Your task to perform on an android device: turn notification dots off Image 0: 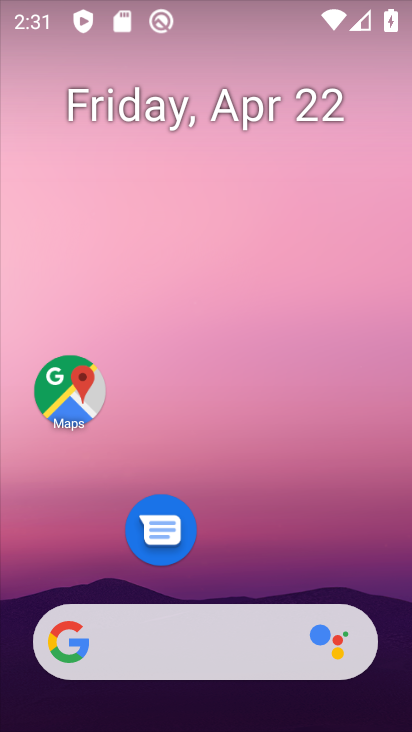
Step 0: drag from (287, 532) to (308, 22)
Your task to perform on an android device: turn notification dots off Image 1: 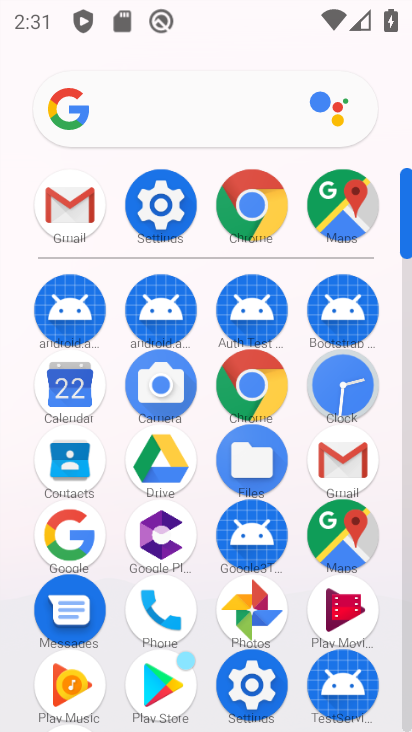
Step 1: click (165, 217)
Your task to perform on an android device: turn notification dots off Image 2: 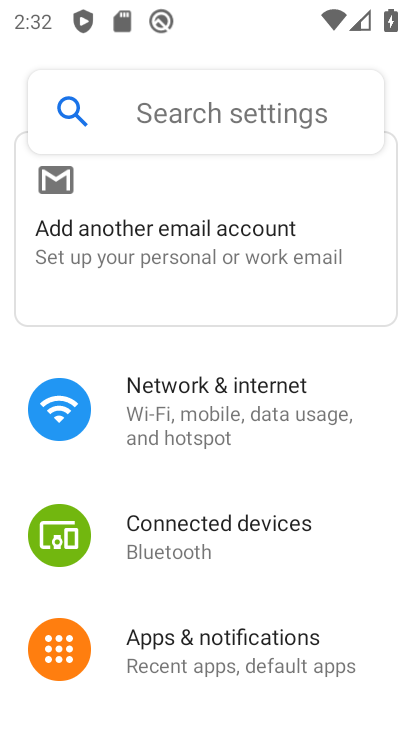
Step 2: click (223, 641)
Your task to perform on an android device: turn notification dots off Image 3: 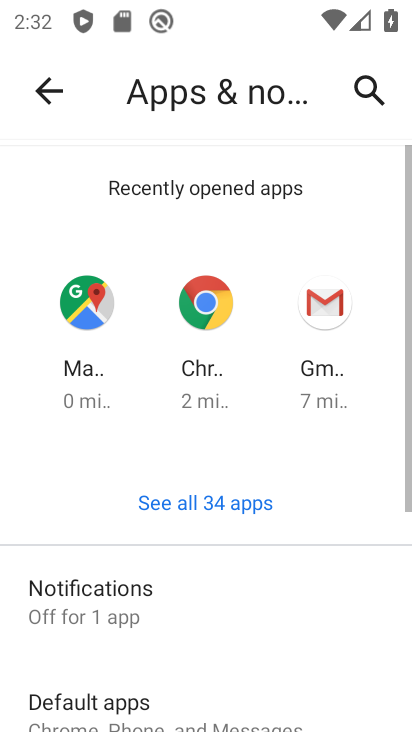
Step 3: drag from (176, 577) to (183, 119)
Your task to perform on an android device: turn notification dots off Image 4: 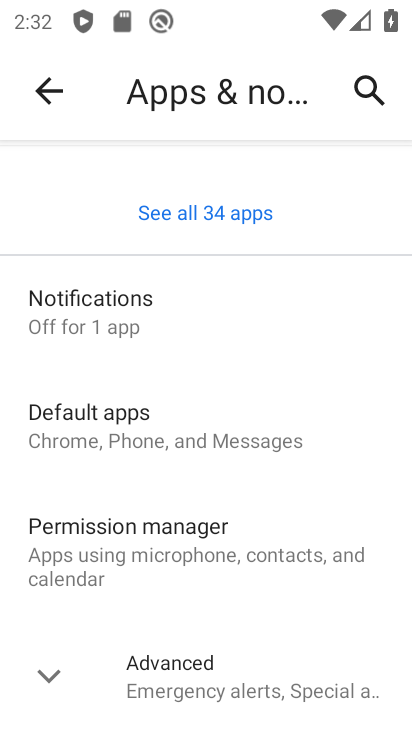
Step 4: click (110, 309)
Your task to perform on an android device: turn notification dots off Image 5: 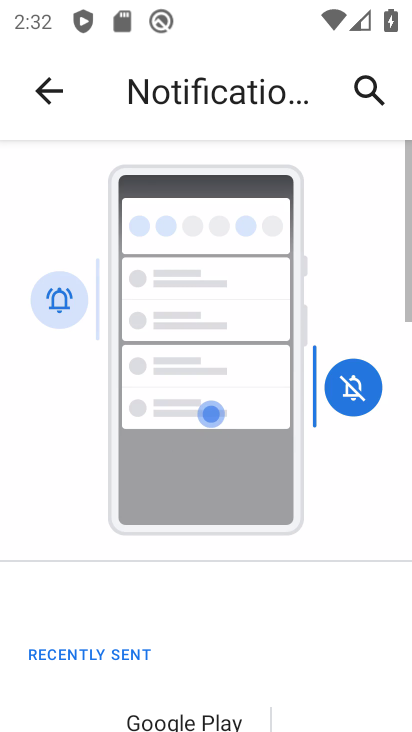
Step 5: drag from (200, 613) to (209, 154)
Your task to perform on an android device: turn notification dots off Image 6: 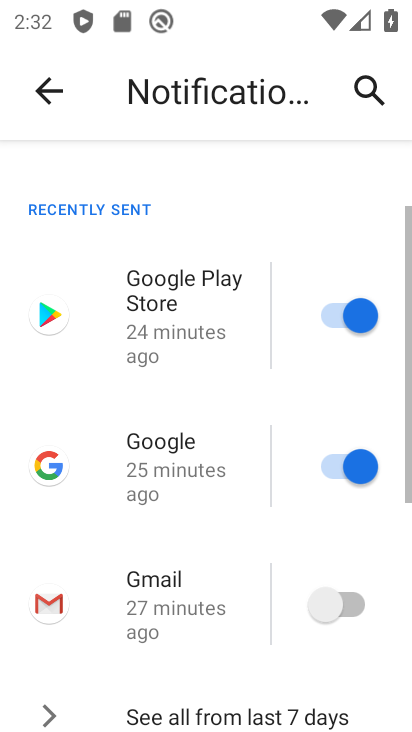
Step 6: drag from (195, 577) to (179, 215)
Your task to perform on an android device: turn notification dots off Image 7: 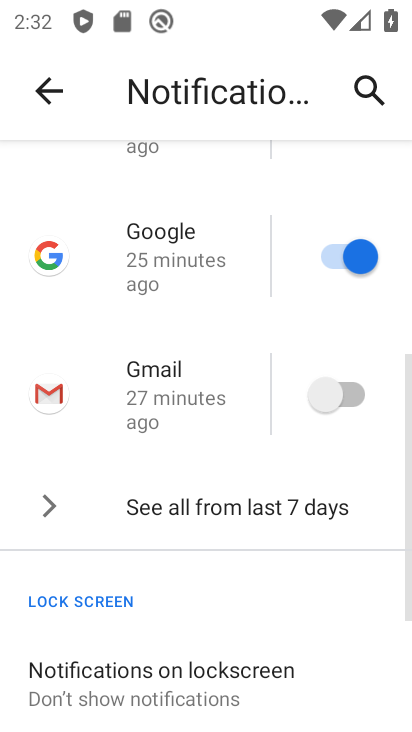
Step 7: drag from (188, 618) to (163, 283)
Your task to perform on an android device: turn notification dots off Image 8: 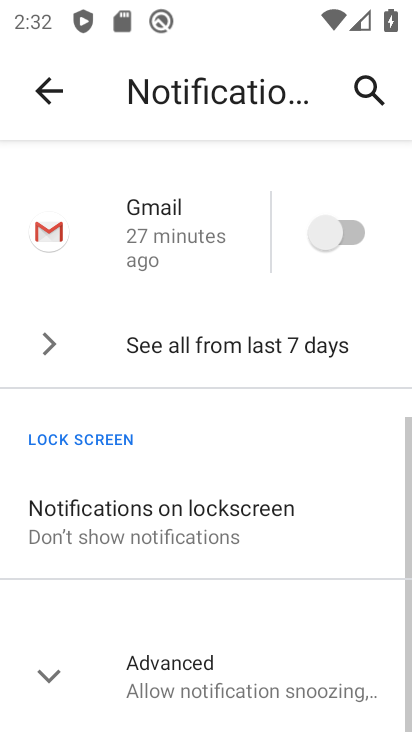
Step 8: drag from (175, 517) to (197, 190)
Your task to perform on an android device: turn notification dots off Image 9: 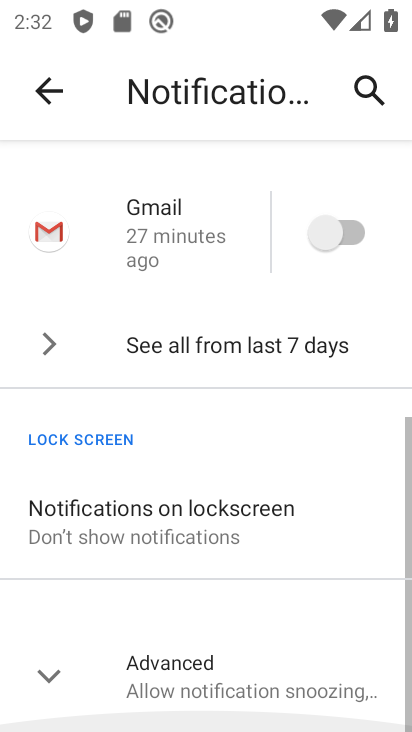
Step 9: click (135, 685)
Your task to perform on an android device: turn notification dots off Image 10: 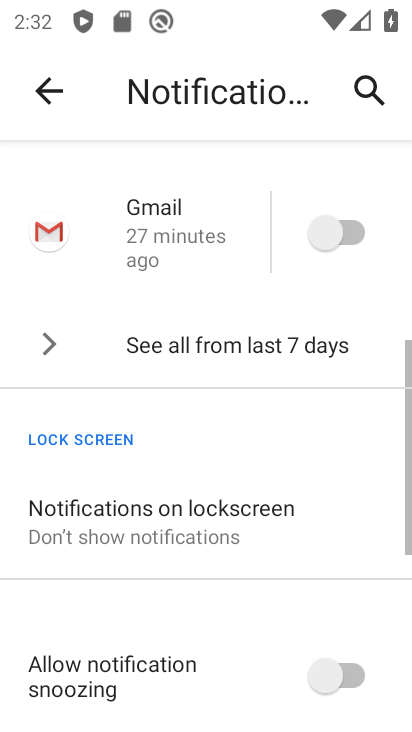
Step 10: drag from (210, 607) to (204, 204)
Your task to perform on an android device: turn notification dots off Image 11: 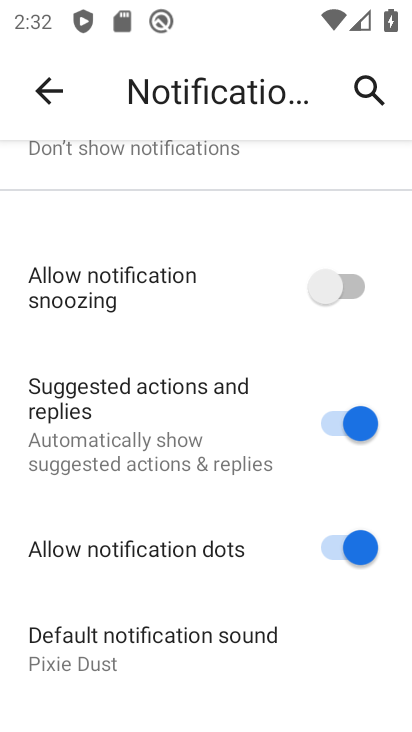
Step 11: click (347, 540)
Your task to perform on an android device: turn notification dots off Image 12: 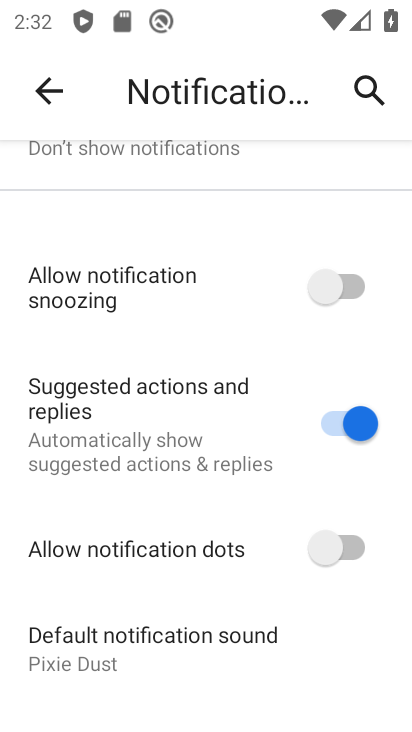
Step 12: task complete